Your task to perform on an android device: Go to notification settings Image 0: 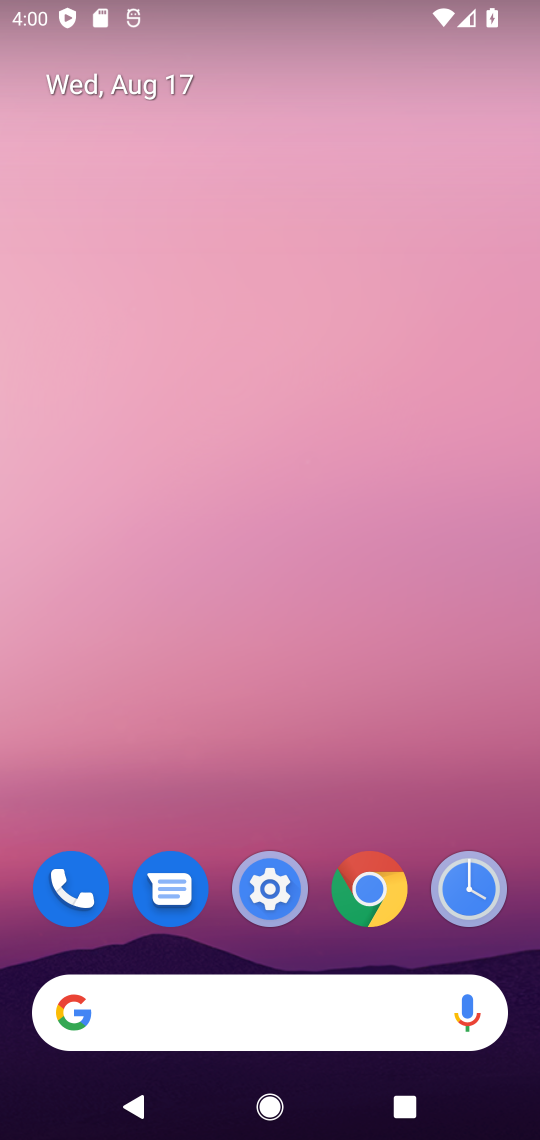
Step 0: click (278, 896)
Your task to perform on an android device: Go to notification settings Image 1: 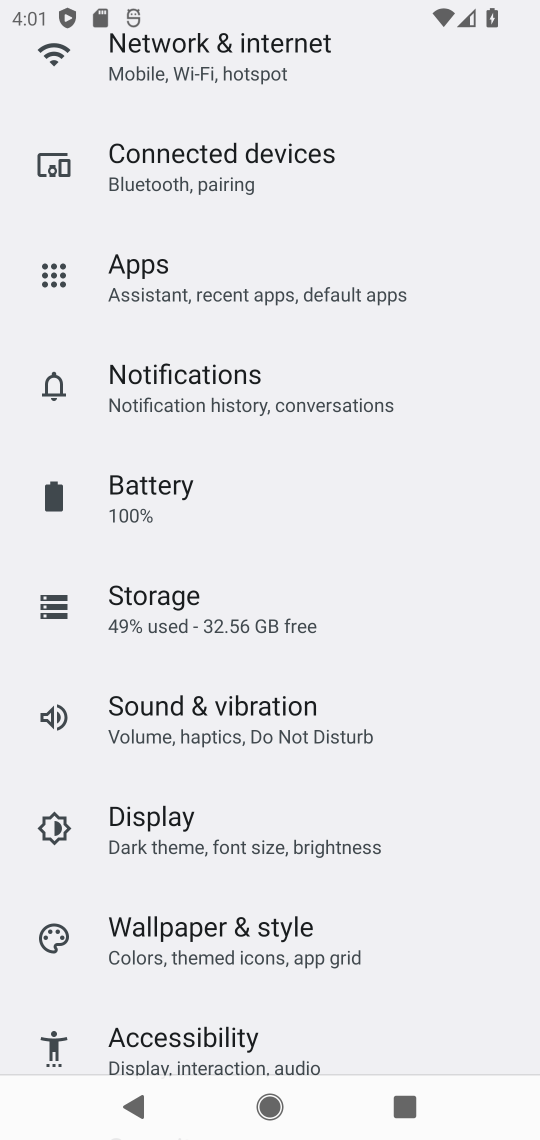
Step 1: click (204, 375)
Your task to perform on an android device: Go to notification settings Image 2: 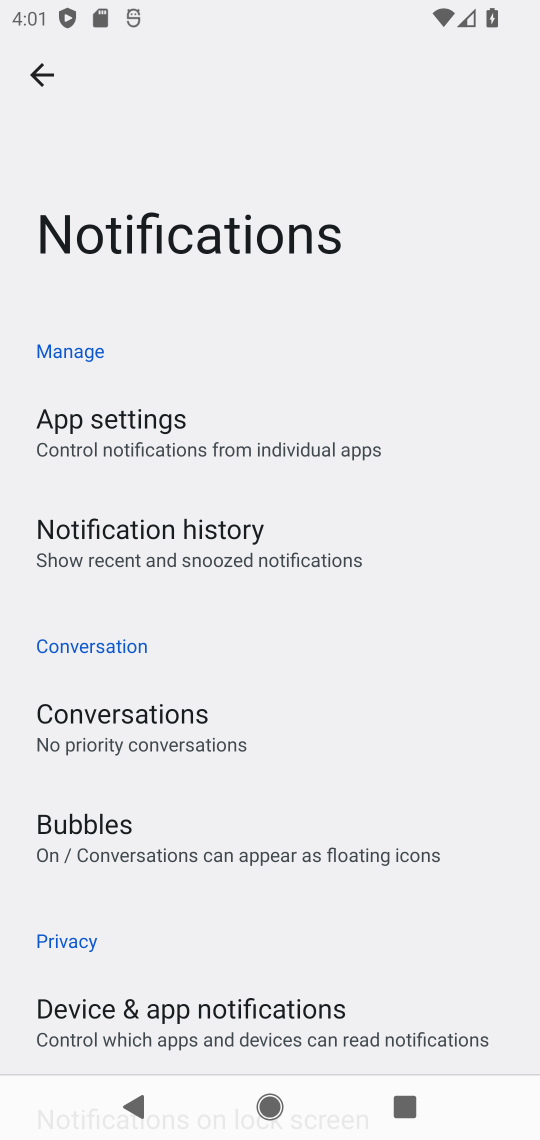
Step 2: task complete